Your task to perform on an android device: Go to Google Image 0: 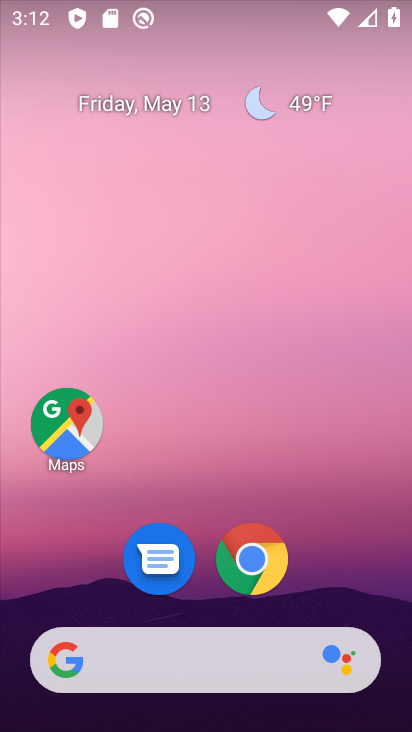
Step 0: click (250, 558)
Your task to perform on an android device: Go to Google Image 1: 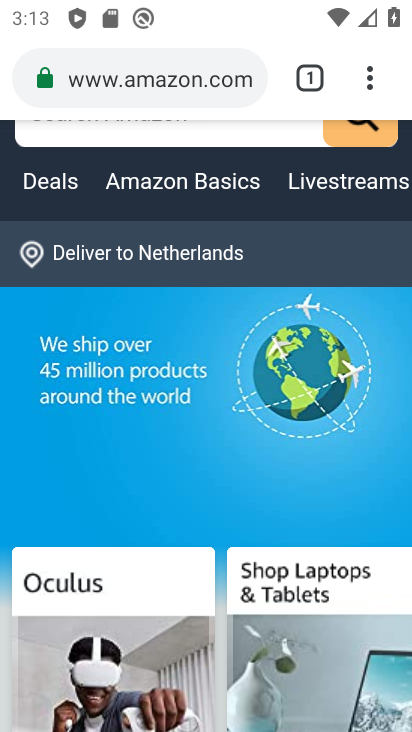
Step 1: task complete